Your task to perform on an android device: find which apps use the phone's location Image 0: 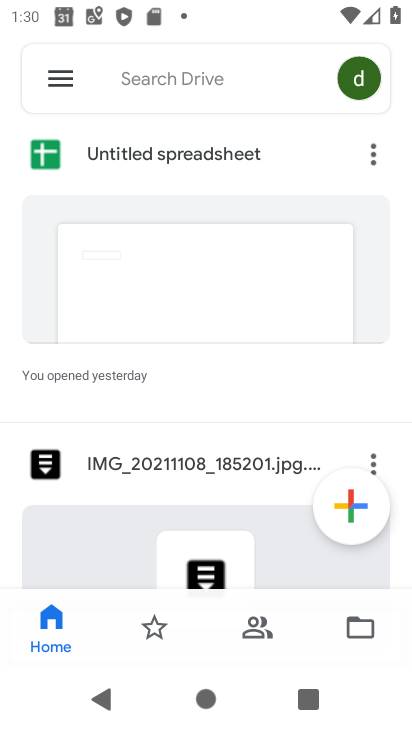
Step 0: press home button
Your task to perform on an android device: find which apps use the phone's location Image 1: 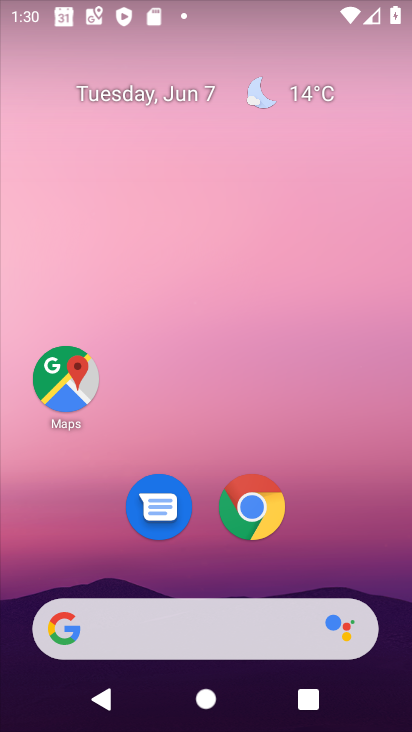
Step 1: drag from (393, 607) to (339, 91)
Your task to perform on an android device: find which apps use the phone's location Image 2: 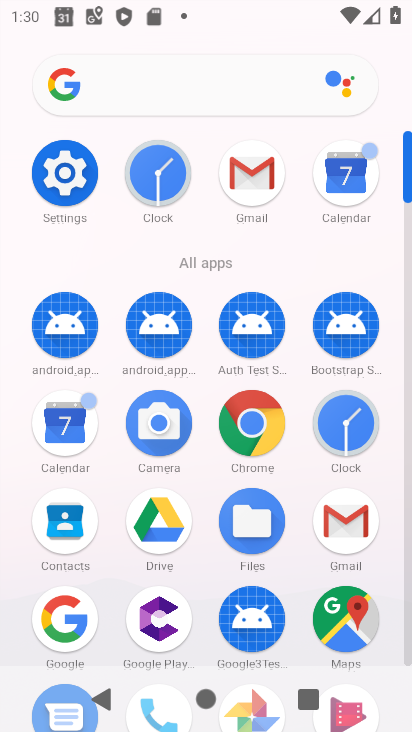
Step 2: click (405, 648)
Your task to perform on an android device: find which apps use the phone's location Image 3: 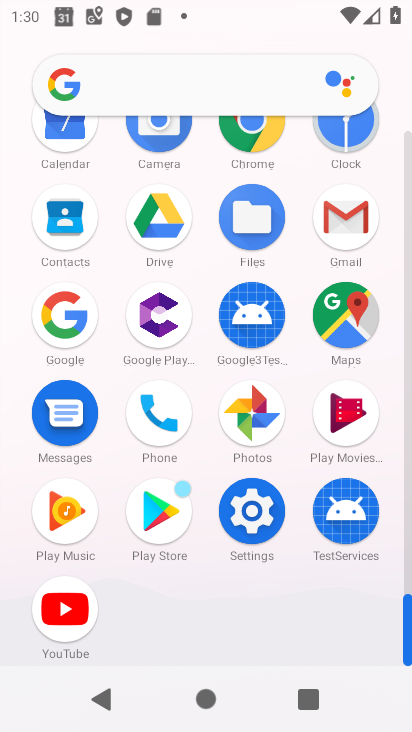
Step 3: click (252, 510)
Your task to perform on an android device: find which apps use the phone's location Image 4: 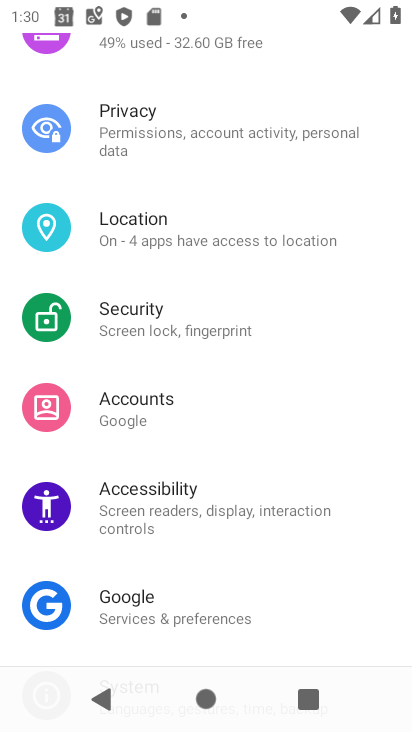
Step 4: click (105, 214)
Your task to perform on an android device: find which apps use the phone's location Image 5: 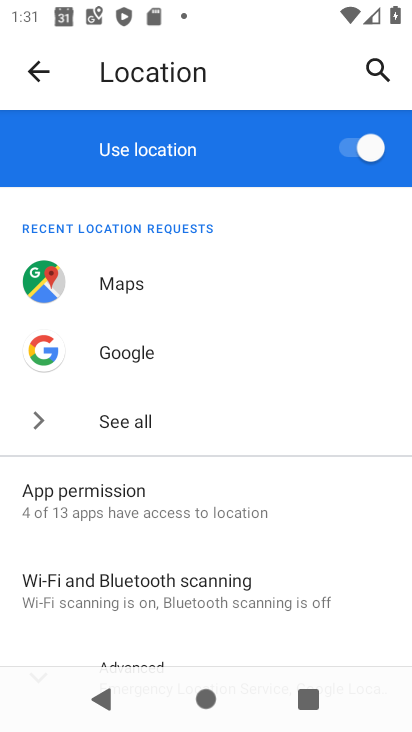
Step 5: click (103, 486)
Your task to perform on an android device: find which apps use the phone's location Image 6: 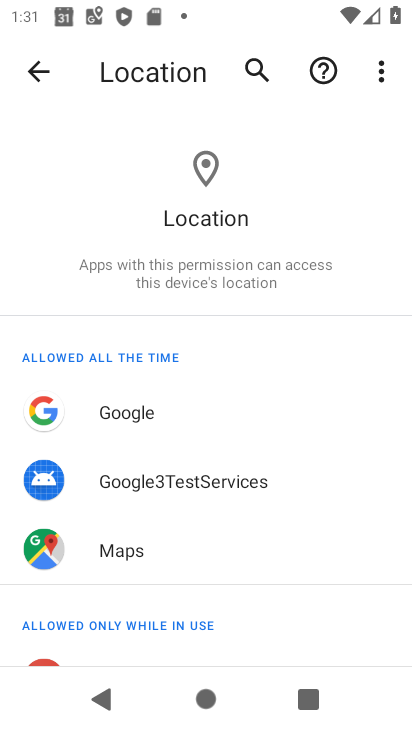
Step 6: drag from (269, 584) to (210, 124)
Your task to perform on an android device: find which apps use the phone's location Image 7: 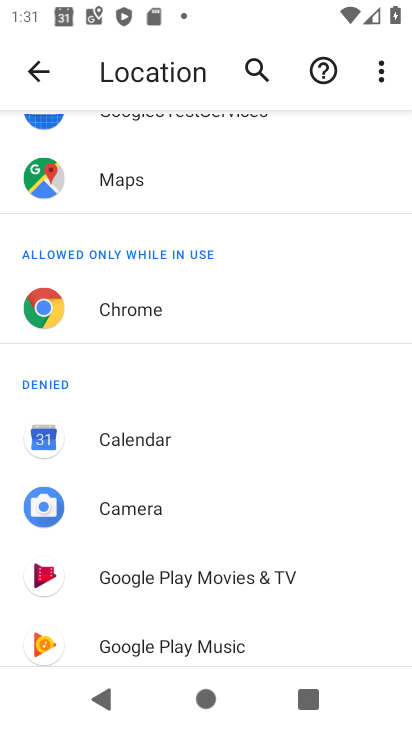
Step 7: drag from (184, 612) to (305, 109)
Your task to perform on an android device: find which apps use the phone's location Image 8: 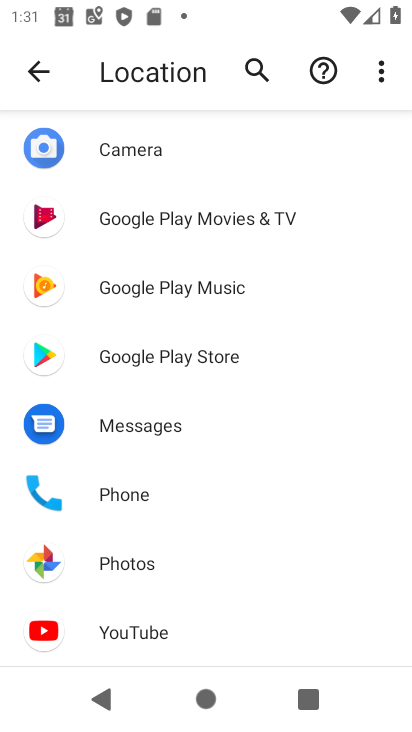
Step 8: click (112, 570)
Your task to perform on an android device: find which apps use the phone's location Image 9: 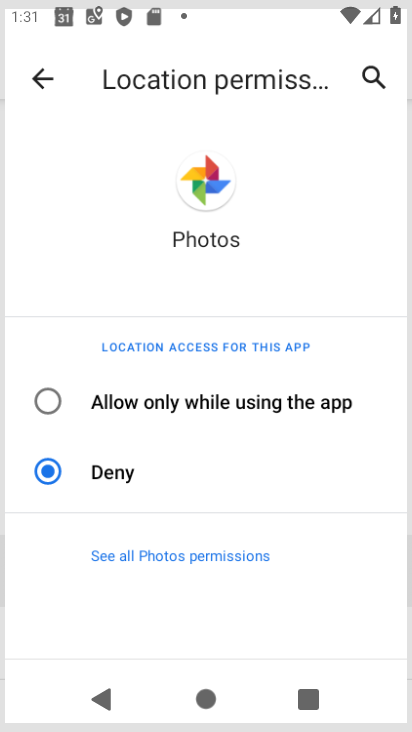
Step 9: click (116, 566)
Your task to perform on an android device: find which apps use the phone's location Image 10: 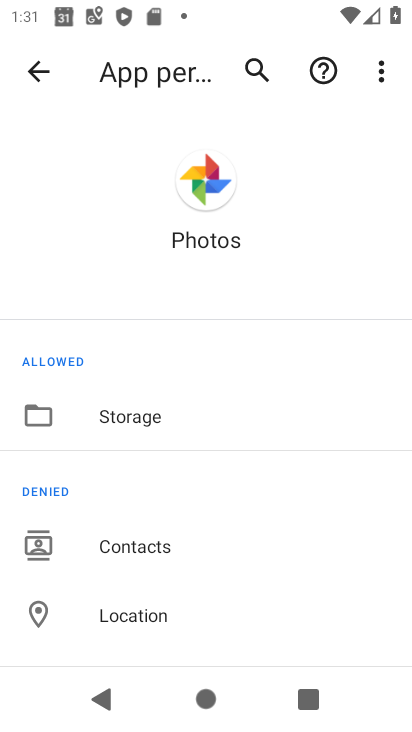
Step 10: task complete